Your task to perform on an android device: Open settings on Google Maps Image 0: 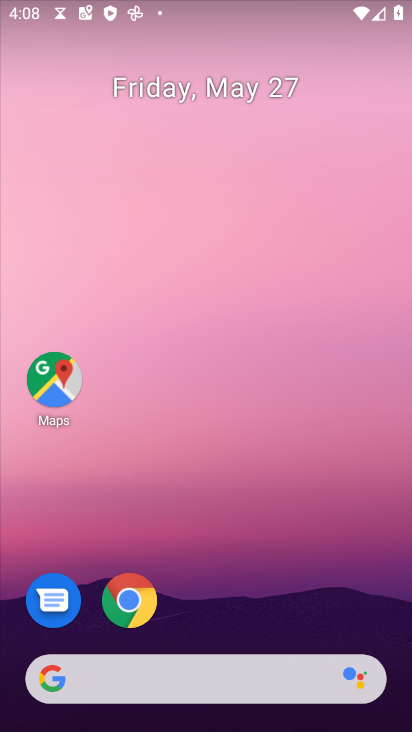
Step 0: click (54, 380)
Your task to perform on an android device: Open settings on Google Maps Image 1: 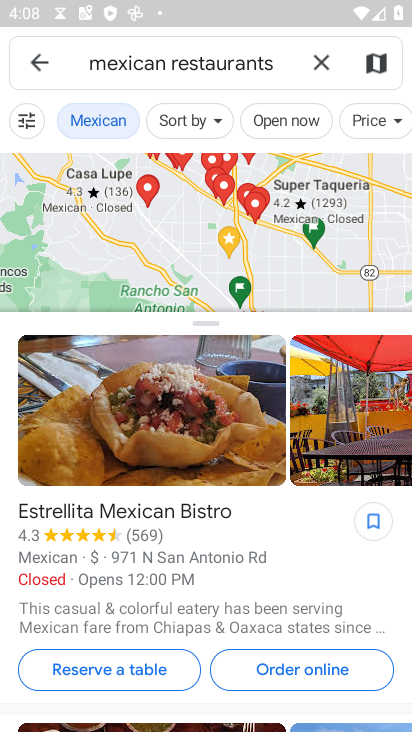
Step 1: click (320, 58)
Your task to perform on an android device: Open settings on Google Maps Image 2: 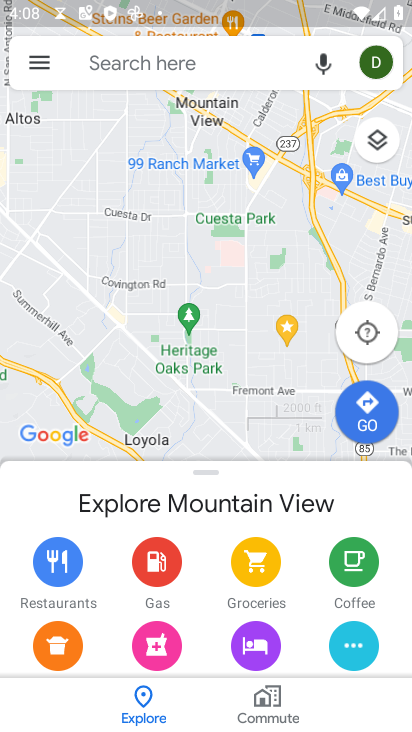
Step 2: click (35, 60)
Your task to perform on an android device: Open settings on Google Maps Image 3: 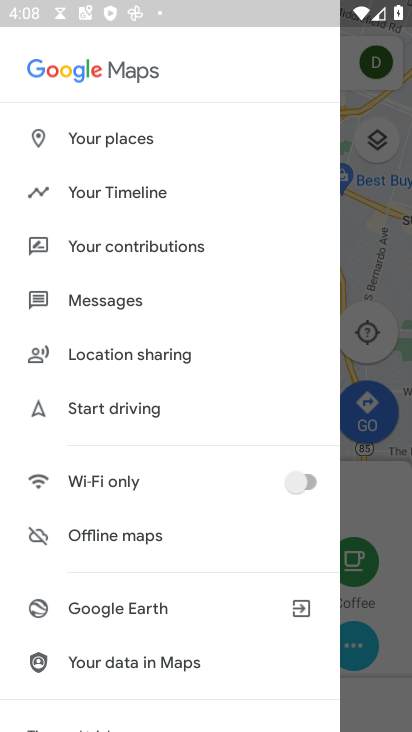
Step 3: drag from (133, 455) to (157, 359)
Your task to perform on an android device: Open settings on Google Maps Image 4: 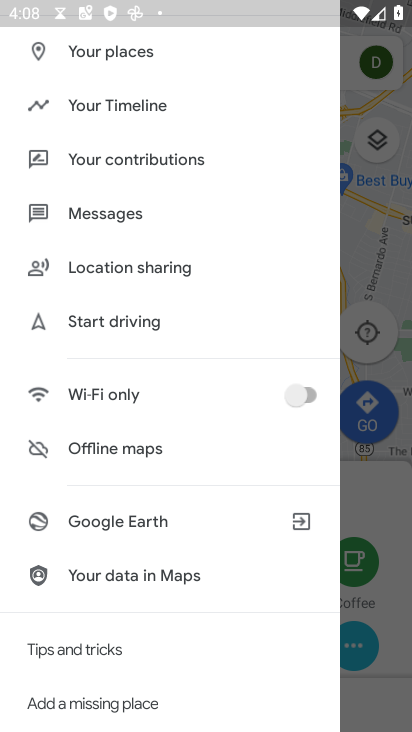
Step 4: drag from (116, 494) to (163, 418)
Your task to perform on an android device: Open settings on Google Maps Image 5: 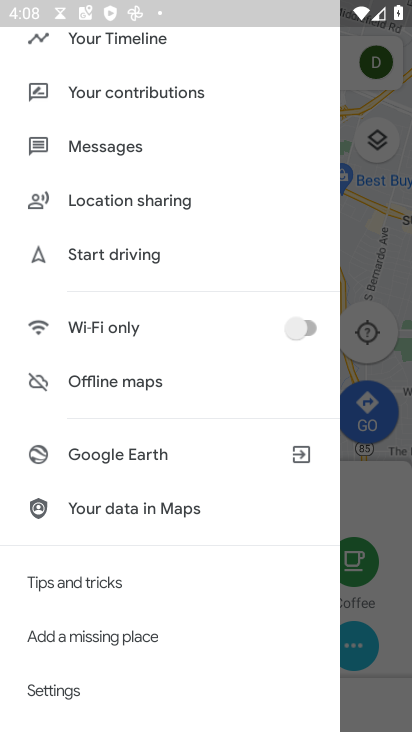
Step 5: drag from (90, 600) to (166, 490)
Your task to perform on an android device: Open settings on Google Maps Image 6: 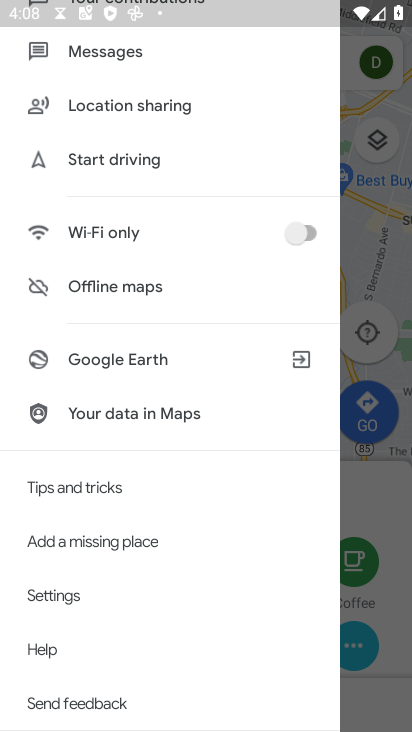
Step 6: drag from (105, 566) to (162, 481)
Your task to perform on an android device: Open settings on Google Maps Image 7: 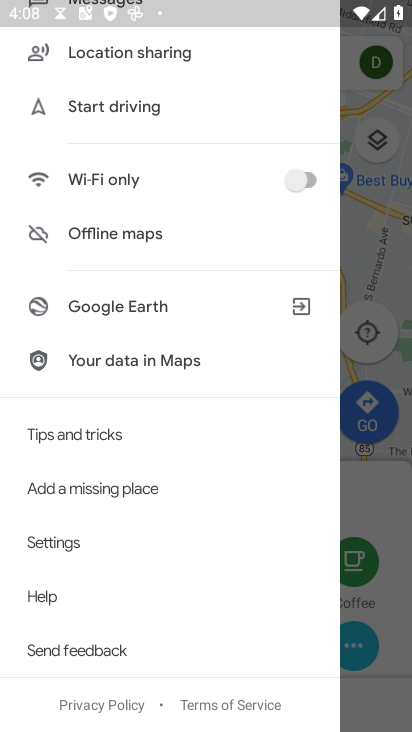
Step 7: click (61, 544)
Your task to perform on an android device: Open settings on Google Maps Image 8: 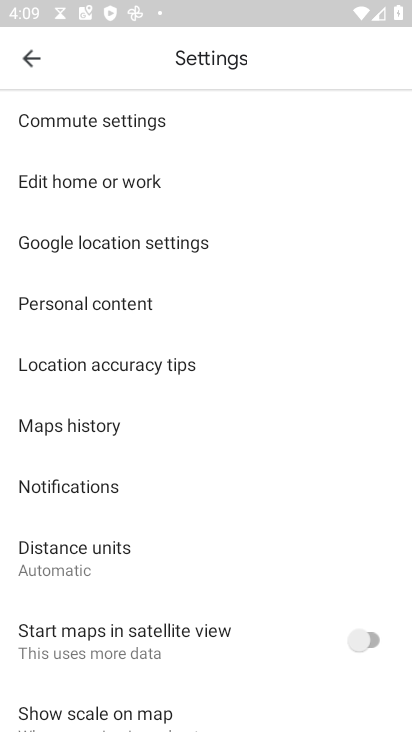
Step 8: task complete